Your task to perform on an android device: find which apps use the phone's location Image 0: 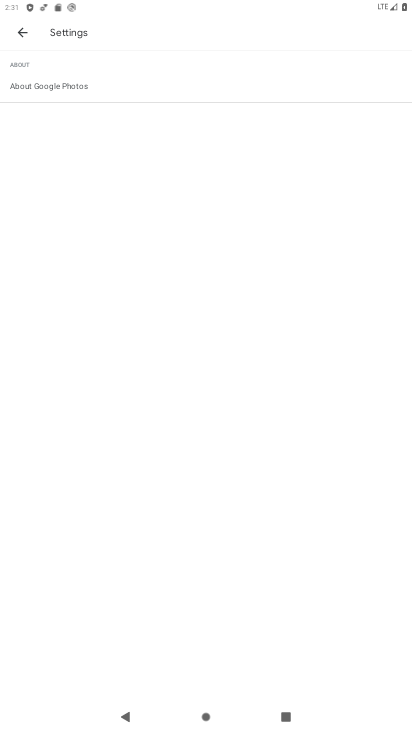
Step 0: press home button
Your task to perform on an android device: find which apps use the phone's location Image 1: 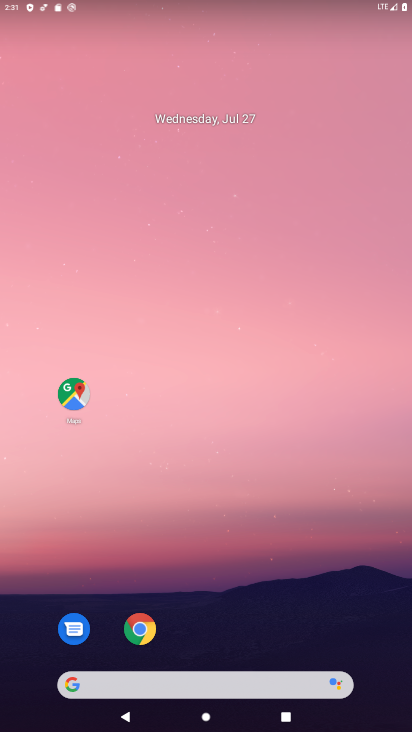
Step 1: drag from (217, 536) to (179, 181)
Your task to perform on an android device: find which apps use the phone's location Image 2: 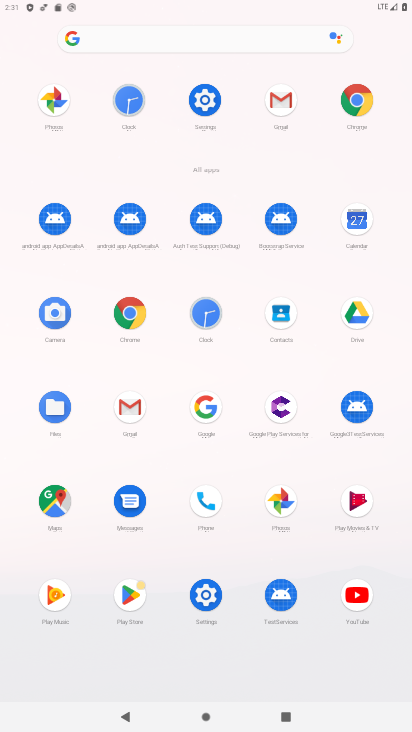
Step 2: click (202, 108)
Your task to perform on an android device: find which apps use the phone's location Image 3: 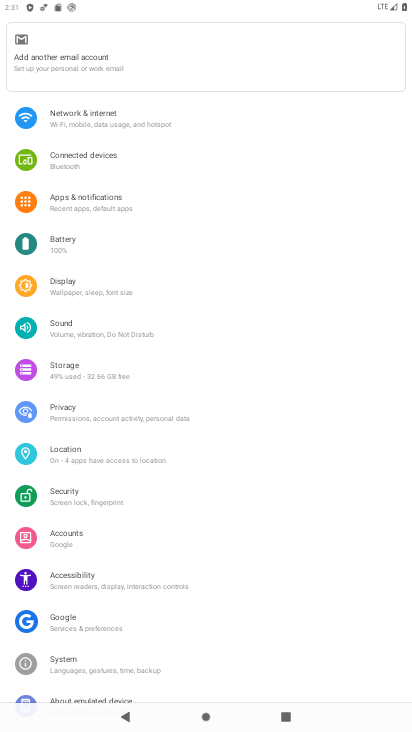
Step 3: click (118, 459)
Your task to perform on an android device: find which apps use the phone's location Image 4: 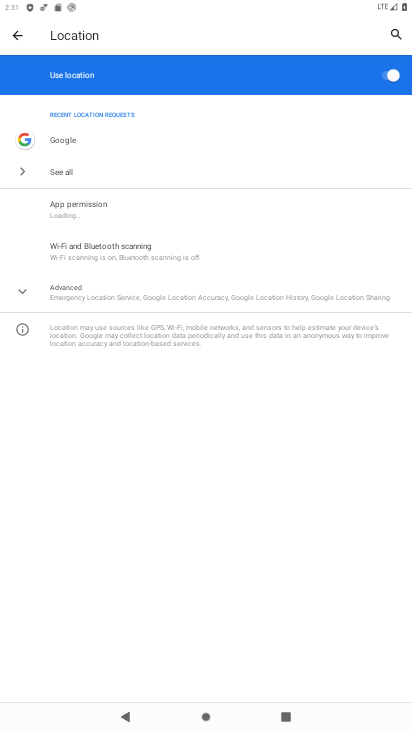
Step 4: task complete